Your task to perform on an android device: Do I have any events tomorrow? Image 0: 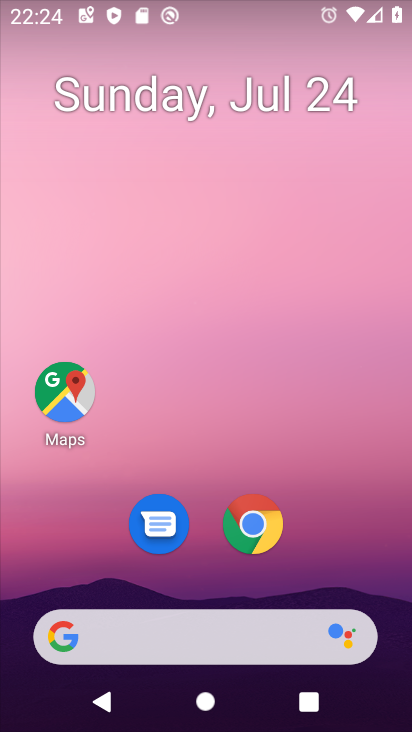
Step 0: press home button
Your task to perform on an android device: Do I have any events tomorrow? Image 1: 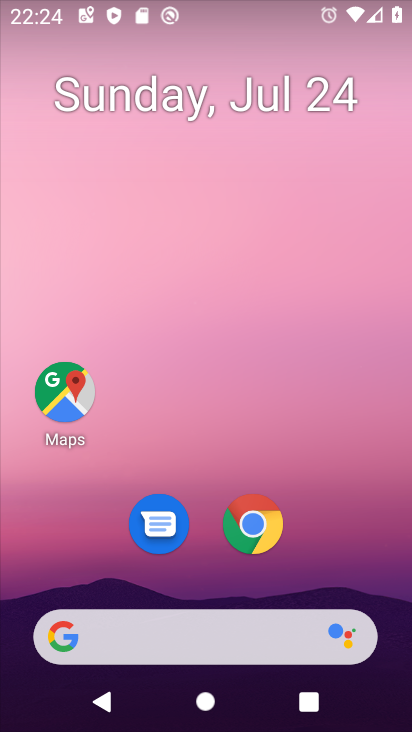
Step 1: drag from (209, 622) to (323, 151)
Your task to perform on an android device: Do I have any events tomorrow? Image 2: 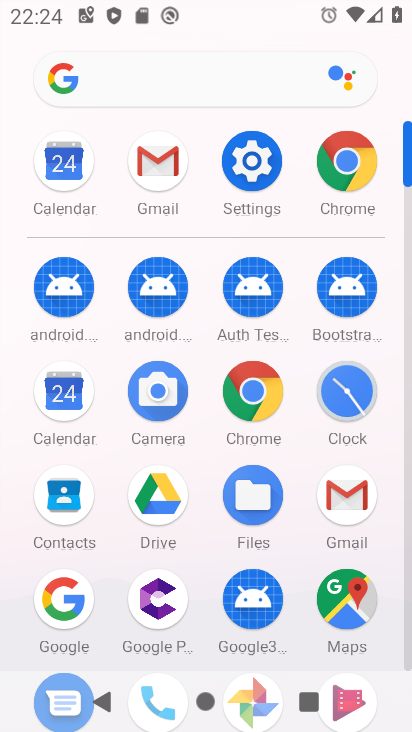
Step 2: click (66, 390)
Your task to perform on an android device: Do I have any events tomorrow? Image 3: 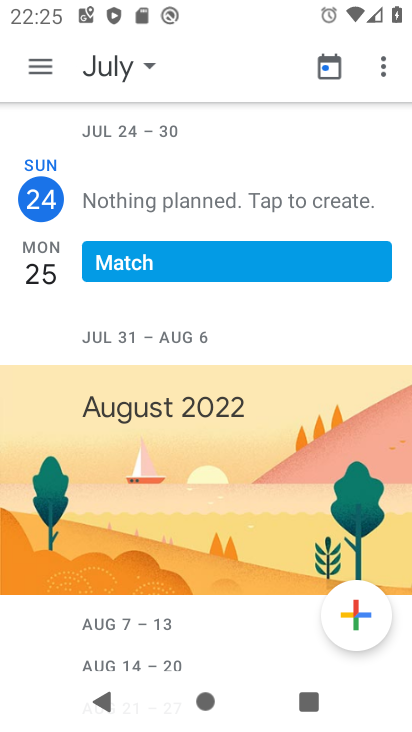
Step 3: click (127, 60)
Your task to perform on an android device: Do I have any events tomorrow? Image 4: 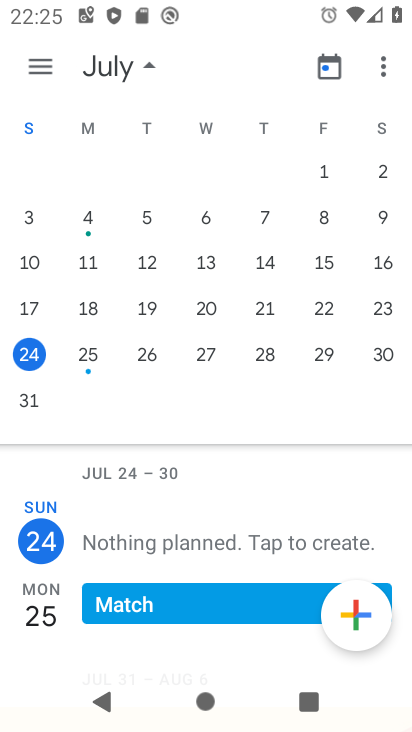
Step 4: click (91, 337)
Your task to perform on an android device: Do I have any events tomorrow? Image 5: 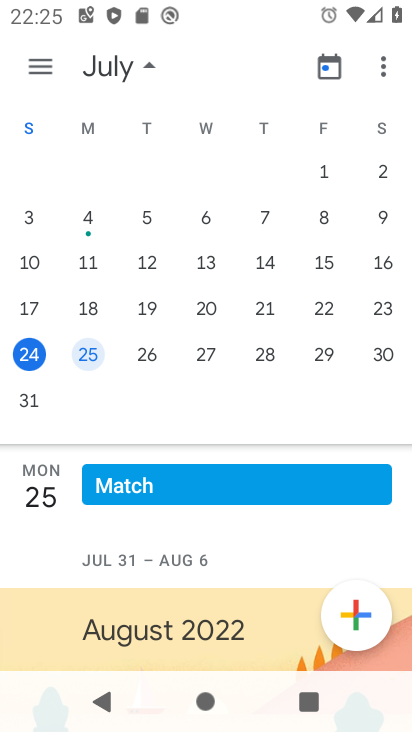
Step 5: click (37, 64)
Your task to perform on an android device: Do I have any events tomorrow? Image 6: 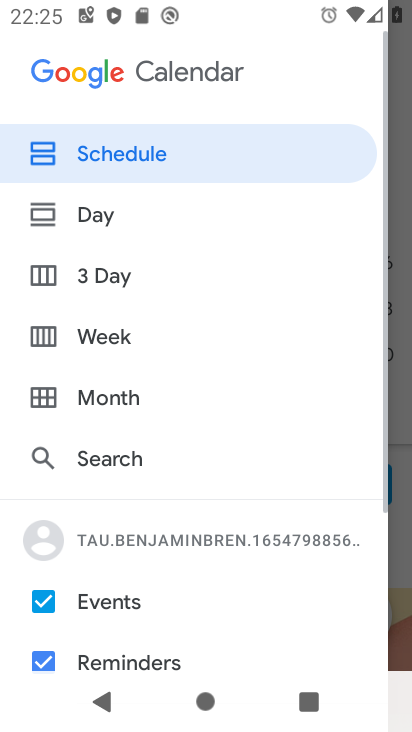
Step 6: click (94, 146)
Your task to perform on an android device: Do I have any events tomorrow? Image 7: 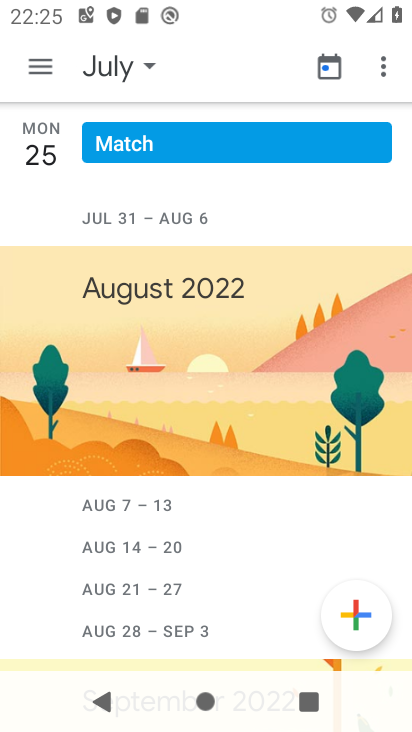
Step 7: click (167, 147)
Your task to perform on an android device: Do I have any events tomorrow? Image 8: 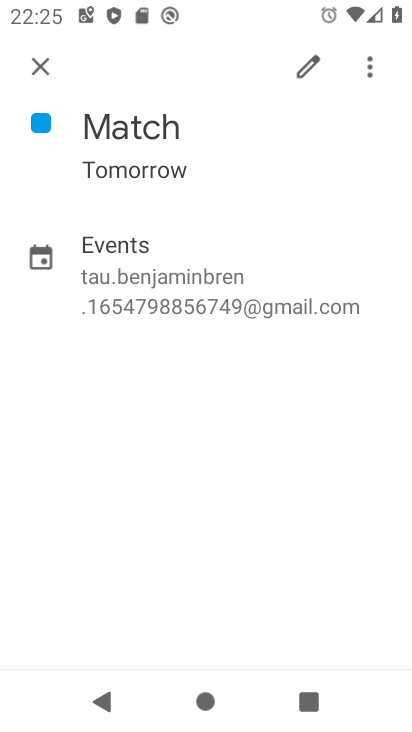
Step 8: task complete